Your task to perform on an android device: Open the stopwatch Image 0: 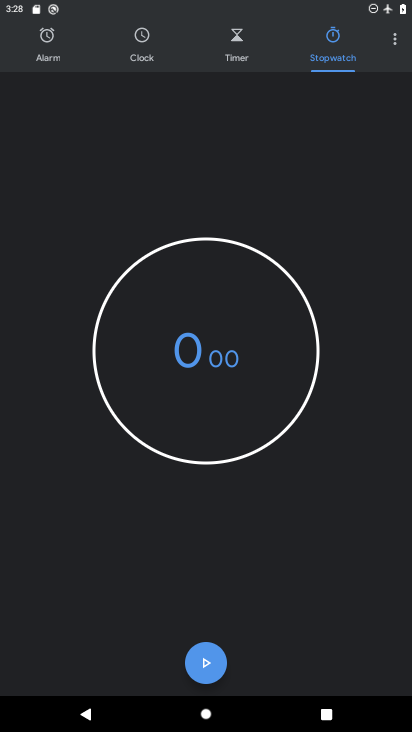
Step 0: task complete